Your task to perform on an android device: stop showing notifications on the lock screen Image 0: 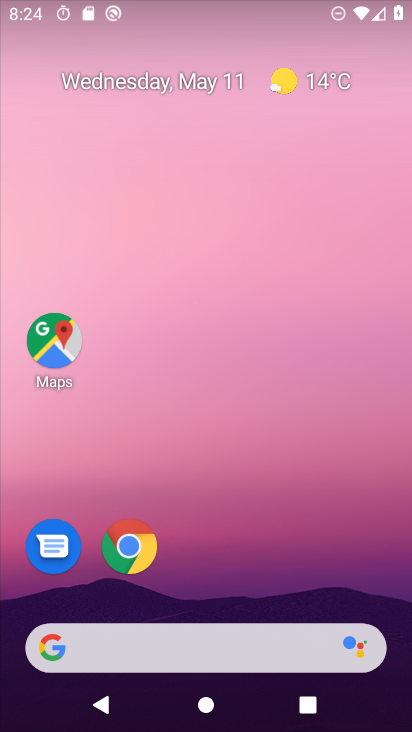
Step 0: click (367, 611)
Your task to perform on an android device: stop showing notifications on the lock screen Image 1: 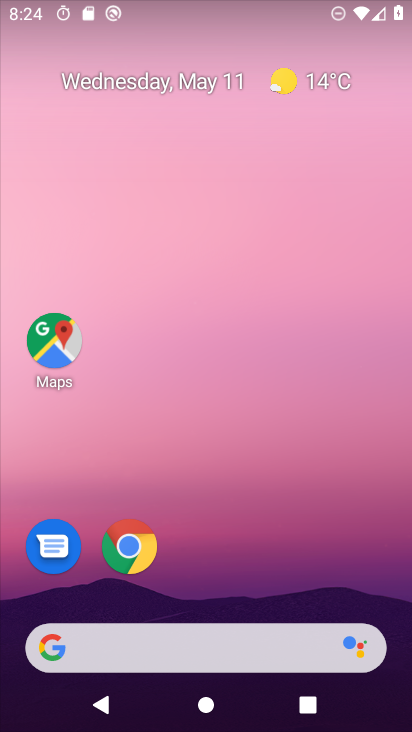
Step 1: drag from (250, 653) to (233, 148)
Your task to perform on an android device: stop showing notifications on the lock screen Image 2: 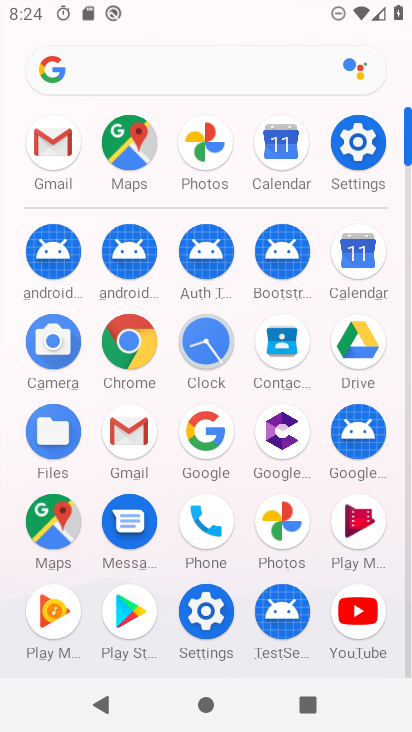
Step 2: click (351, 137)
Your task to perform on an android device: stop showing notifications on the lock screen Image 3: 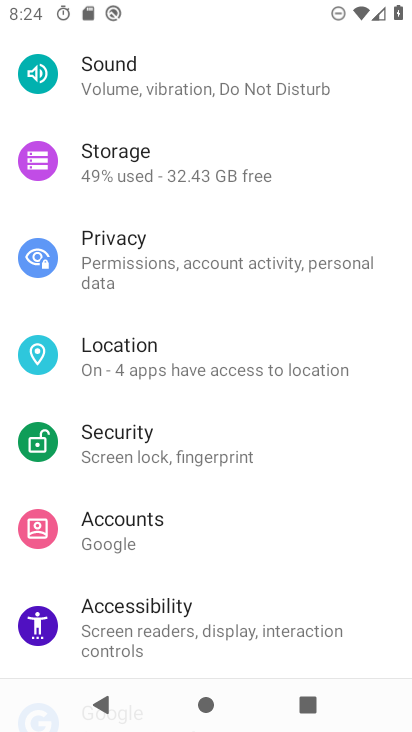
Step 3: drag from (175, 277) to (190, 710)
Your task to perform on an android device: stop showing notifications on the lock screen Image 4: 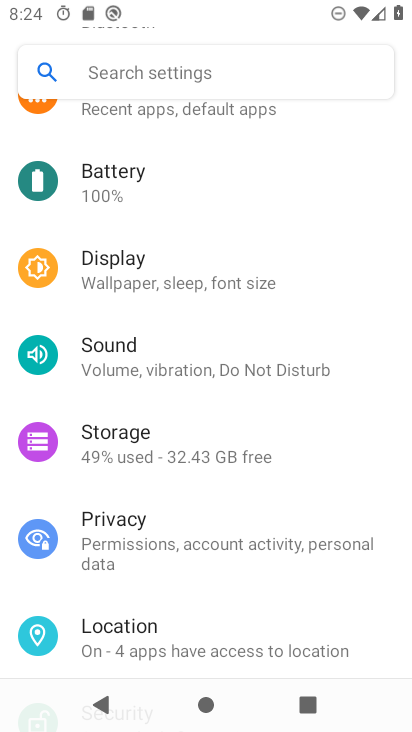
Step 4: drag from (174, 262) to (155, 487)
Your task to perform on an android device: stop showing notifications on the lock screen Image 5: 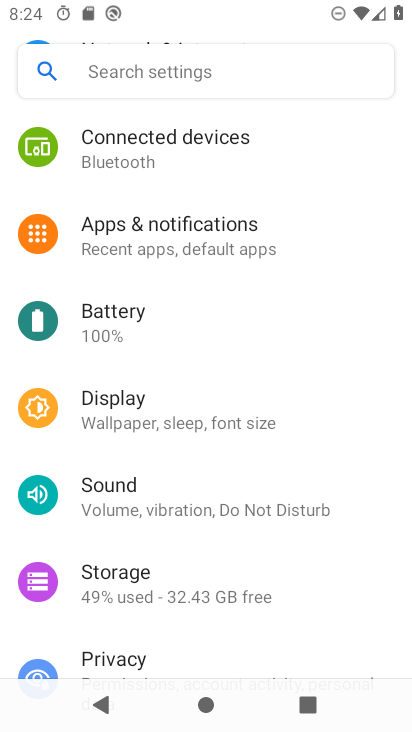
Step 5: click (212, 245)
Your task to perform on an android device: stop showing notifications on the lock screen Image 6: 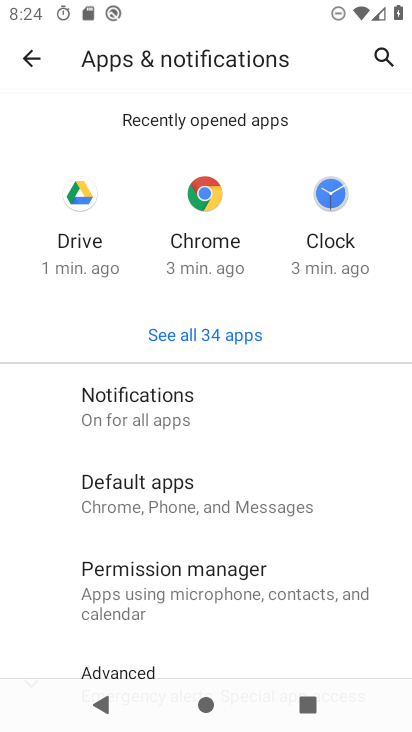
Step 6: click (188, 428)
Your task to perform on an android device: stop showing notifications on the lock screen Image 7: 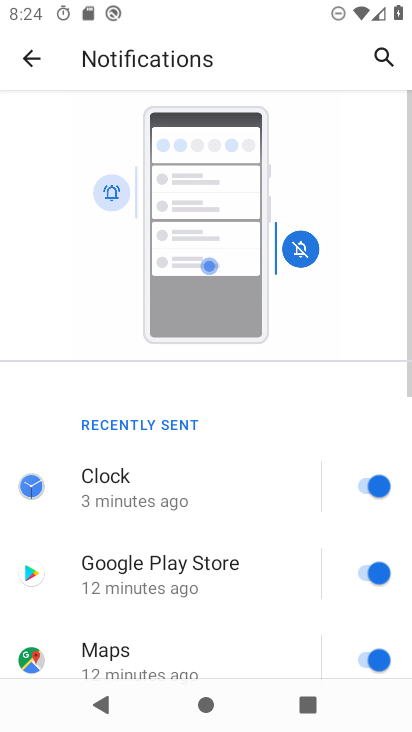
Step 7: drag from (198, 531) to (129, 79)
Your task to perform on an android device: stop showing notifications on the lock screen Image 8: 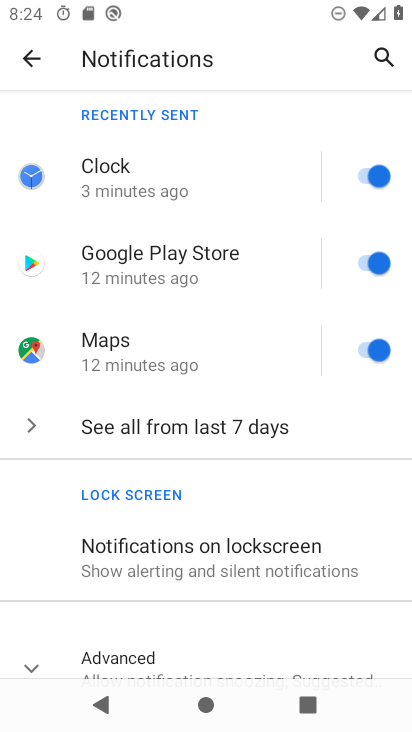
Step 8: click (222, 570)
Your task to perform on an android device: stop showing notifications on the lock screen Image 9: 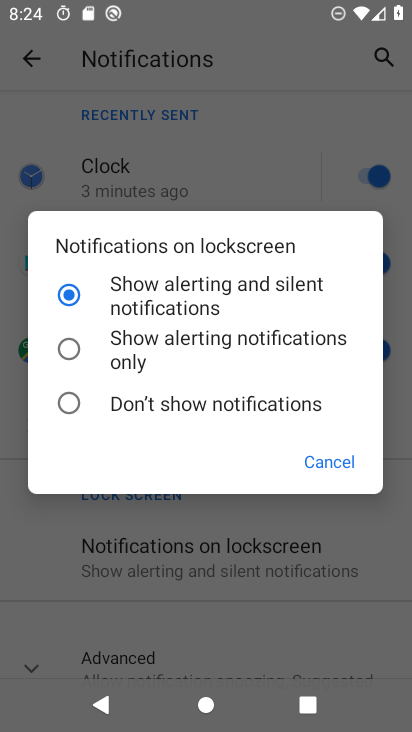
Step 9: click (118, 410)
Your task to perform on an android device: stop showing notifications on the lock screen Image 10: 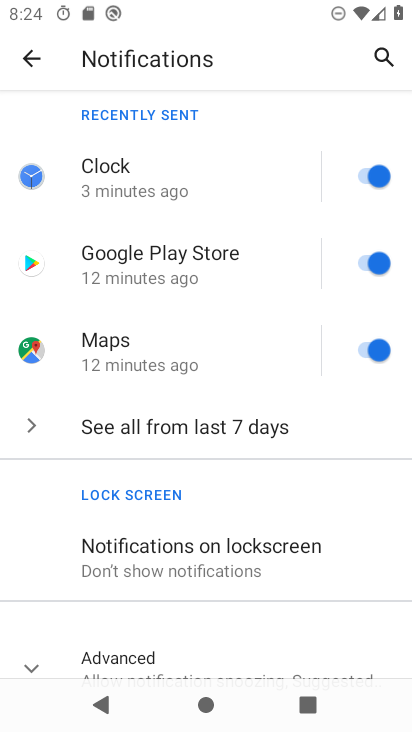
Step 10: task complete